Your task to perform on an android device: turn on location history Image 0: 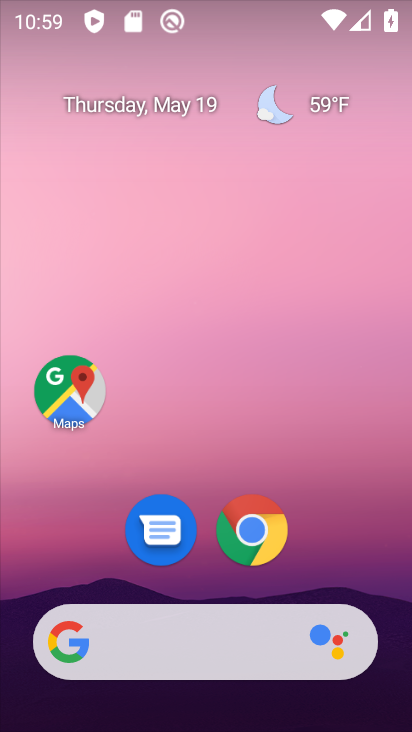
Step 0: drag from (359, 560) to (288, 156)
Your task to perform on an android device: turn on location history Image 1: 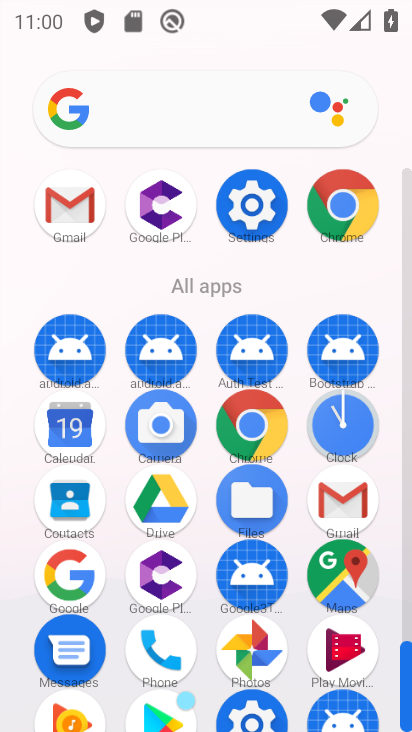
Step 1: click (250, 223)
Your task to perform on an android device: turn on location history Image 2: 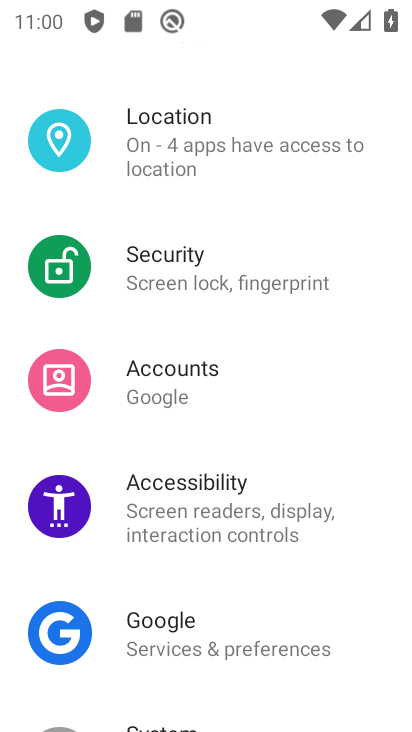
Step 2: drag from (263, 611) to (277, 274)
Your task to perform on an android device: turn on location history Image 3: 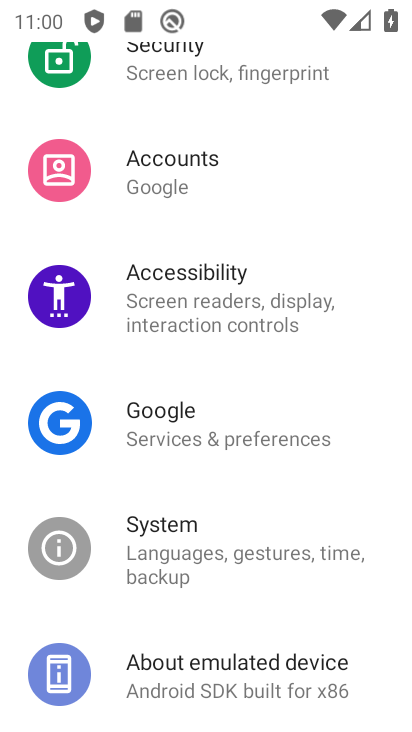
Step 3: drag from (281, 600) to (293, 338)
Your task to perform on an android device: turn on location history Image 4: 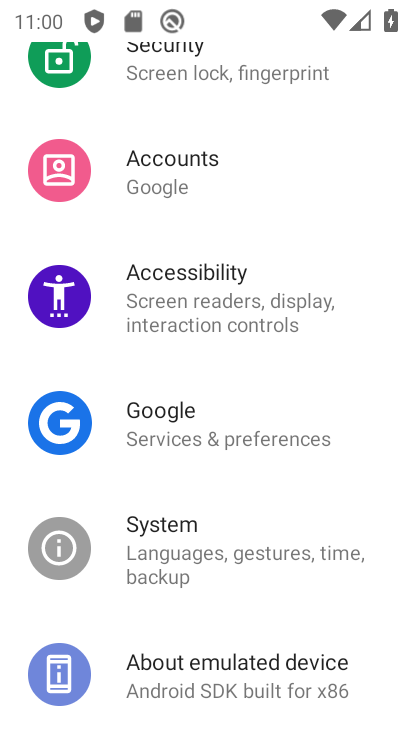
Step 4: drag from (193, 234) to (188, 494)
Your task to perform on an android device: turn on location history Image 5: 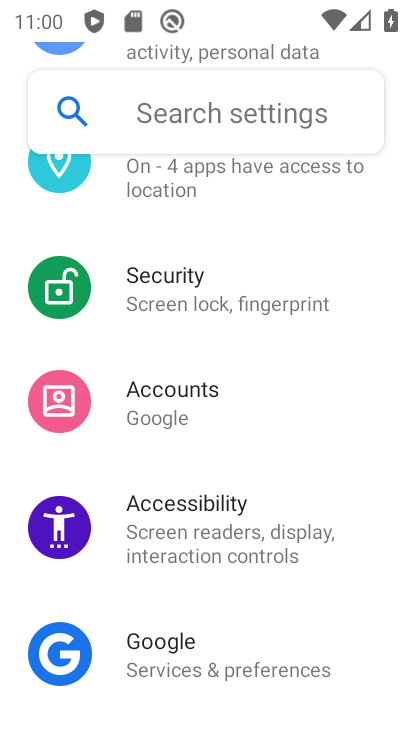
Step 5: drag from (193, 270) to (190, 475)
Your task to perform on an android device: turn on location history Image 6: 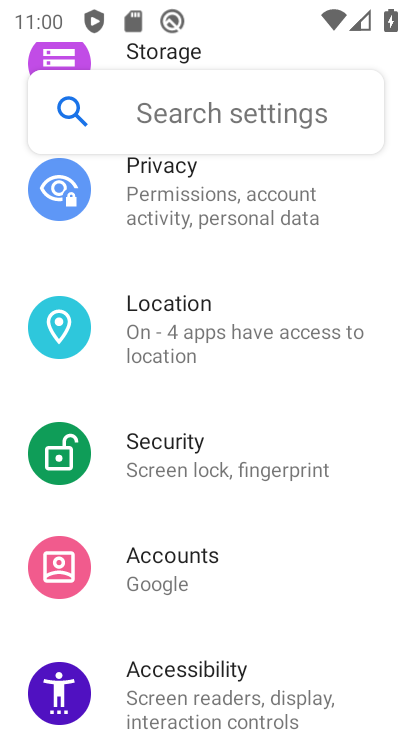
Step 6: click (189, 344)
Your task to perform on an android device: turn on location history Image 7: 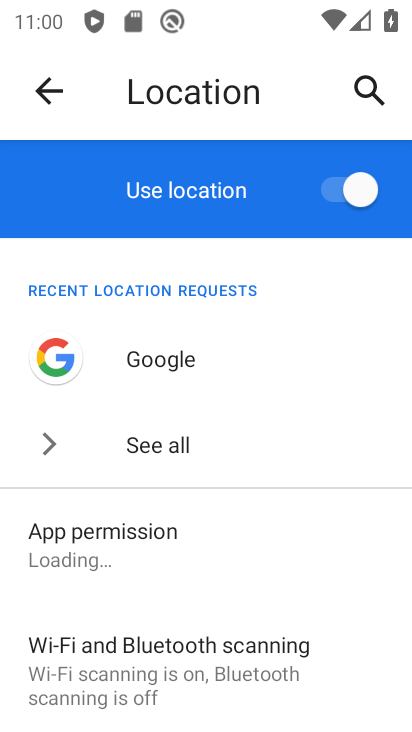
Step 7: task complete